Your task to perform on an android device: Open the map Image 0: 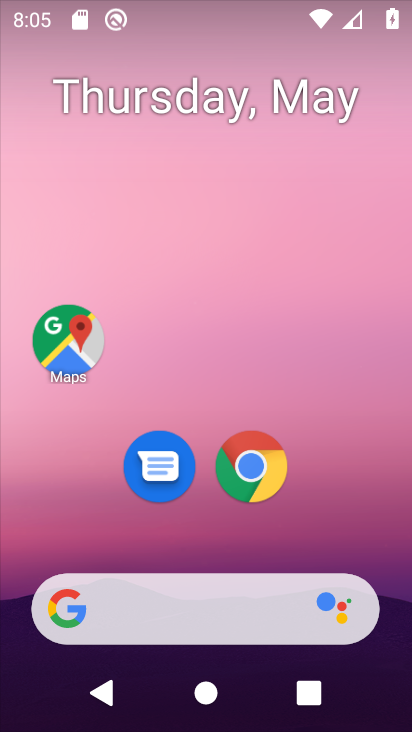
Step 0: click (79, 346)
Your task to perform on an android device: Open the map Image 1: 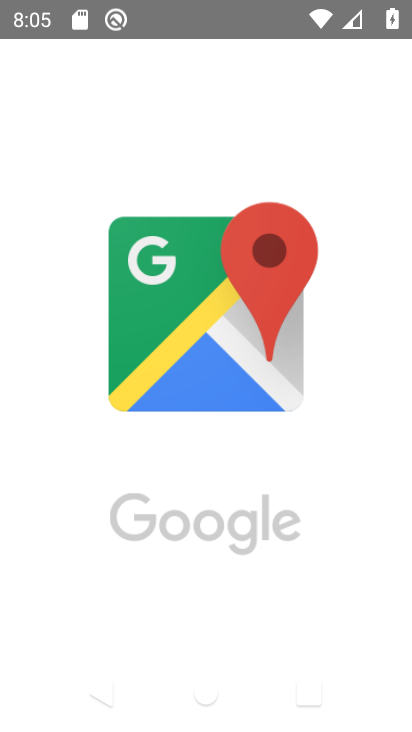
Step 1: task complete